Your task to perform on an android device: Turn off the flashlight Image 0: 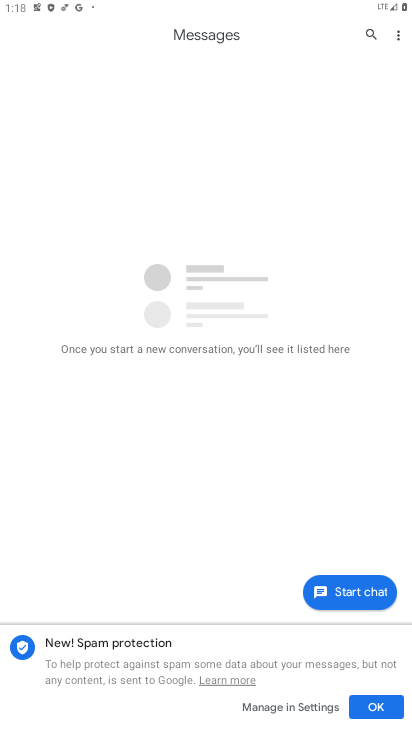
Step 0: press home button
Your task to perform on an android device: Turn off the flashlight Image 1: 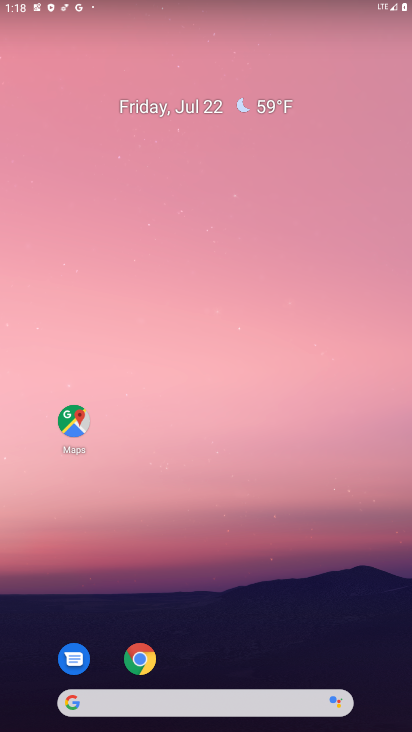
Step 1: drag from (310, 548) to (363, 4)
Your task to perform on an android device: Turn off the flashlight Image 2: 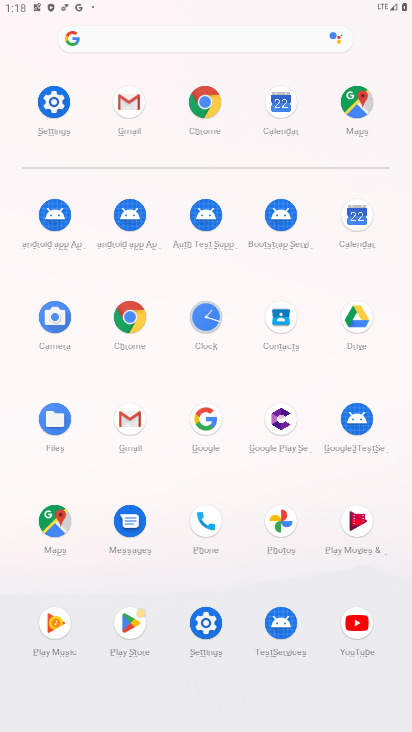
Step 2: click (49, 100)
Your task to perform on an android device: Turn off the flashlight Image 3: 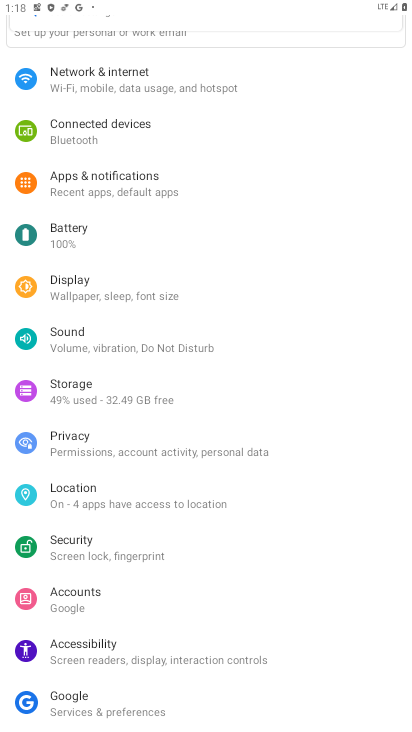
Step 3: task complete